Your task to perform on an android device: turn on wifi Image 0: 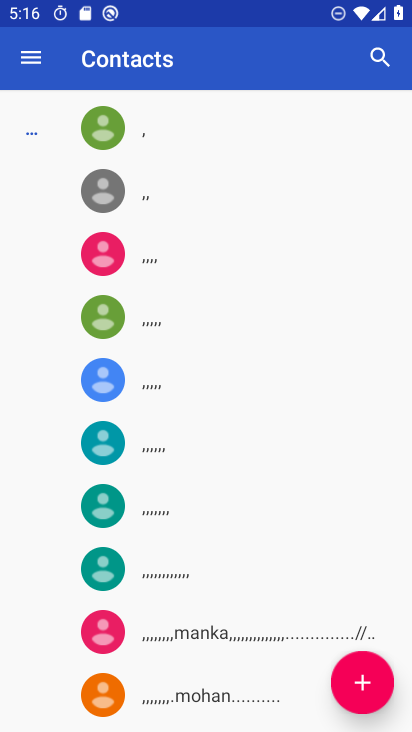
Step 0: drag from (171, 651) to (342, 295)
Your task to perform on an android device: turn on wifi Image 1: 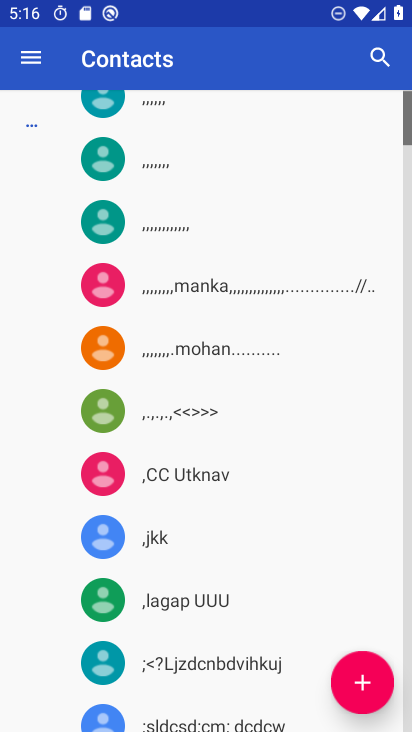
Step 1: press home button
Your task to perform on an android device: turn on wifi Image 2: 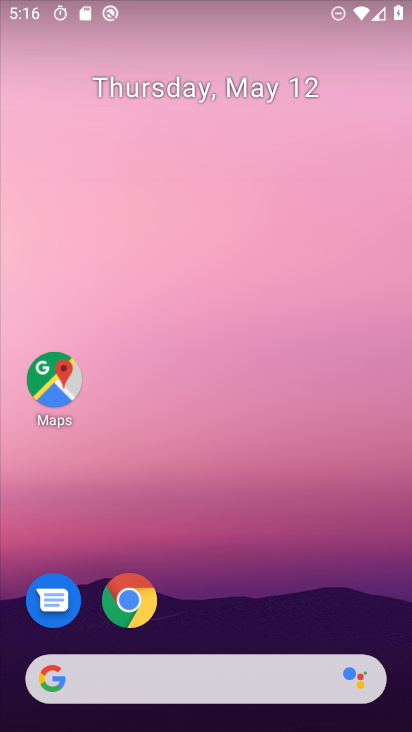
Step 2: drag from (220, 639) to (277, 263)
Your task to perform on an android device: turn on wifi Image 3: 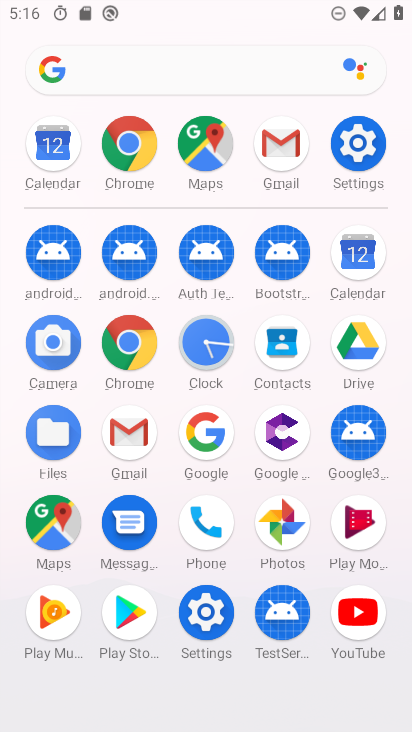
Step 3: click (343, 135)
Your task to perform on an android device: turn on wifi Image 4: 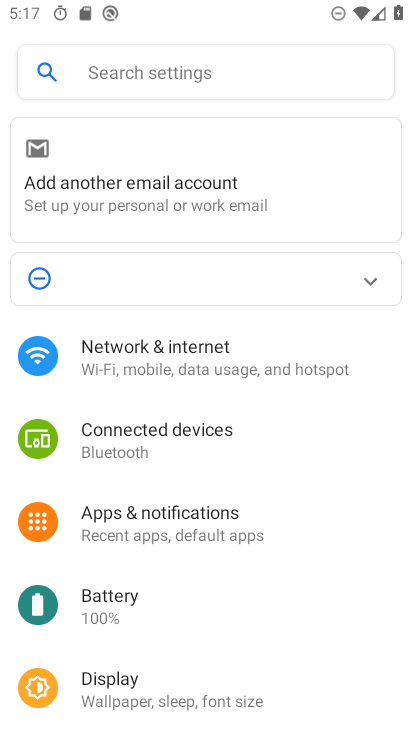
Step 4: drag from (191, 674) to (294, 208)
Your task to perform on an android device: turn on wifi Image 5: 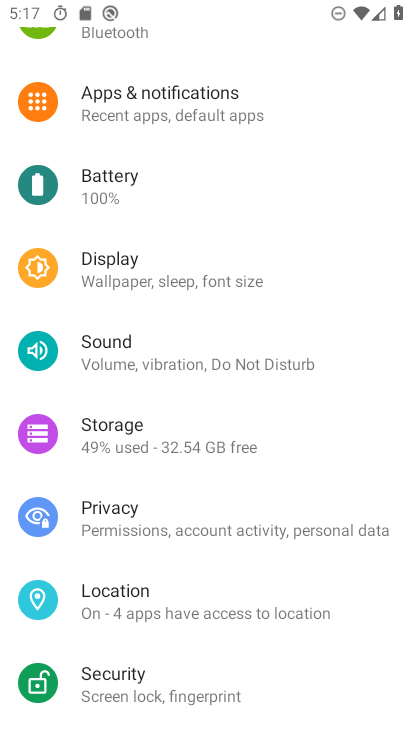
Step 5: drag from (220, 183) to (171, 656)
Your task to perform on an android device: turn on wifi Image 6: 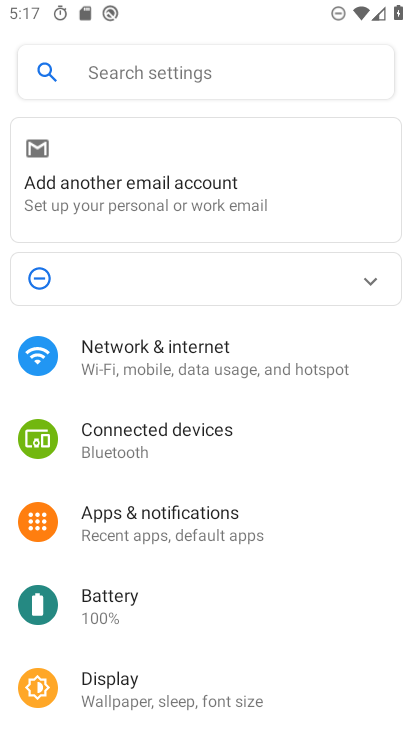
Step 6: click (178, 366)
Your task to perform on an android device: turn on wifi Image 7: 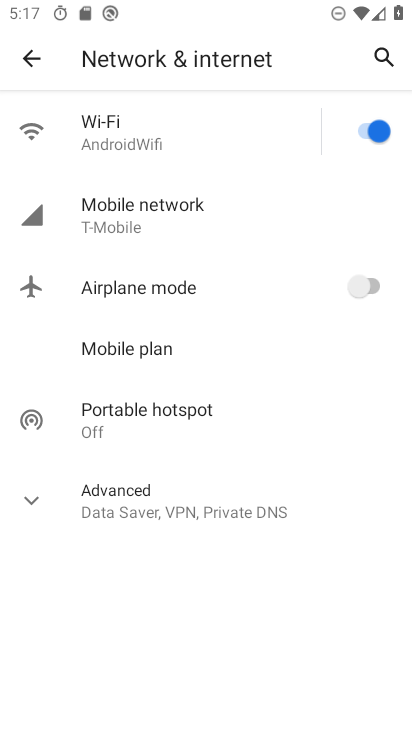
Step 7: task complete